Your task to perform on an android device: Do I have any events this weekend? Image 0: 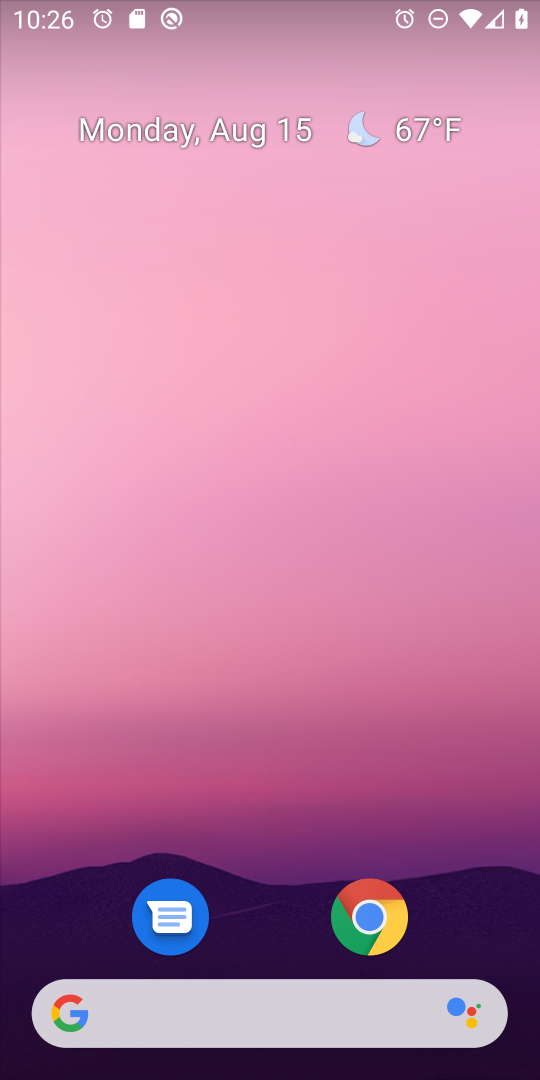
Step 0: drag from (294, 722) to (357, 0)
Your task to perform on an android device: Do I have any events this weekend? Image 1: 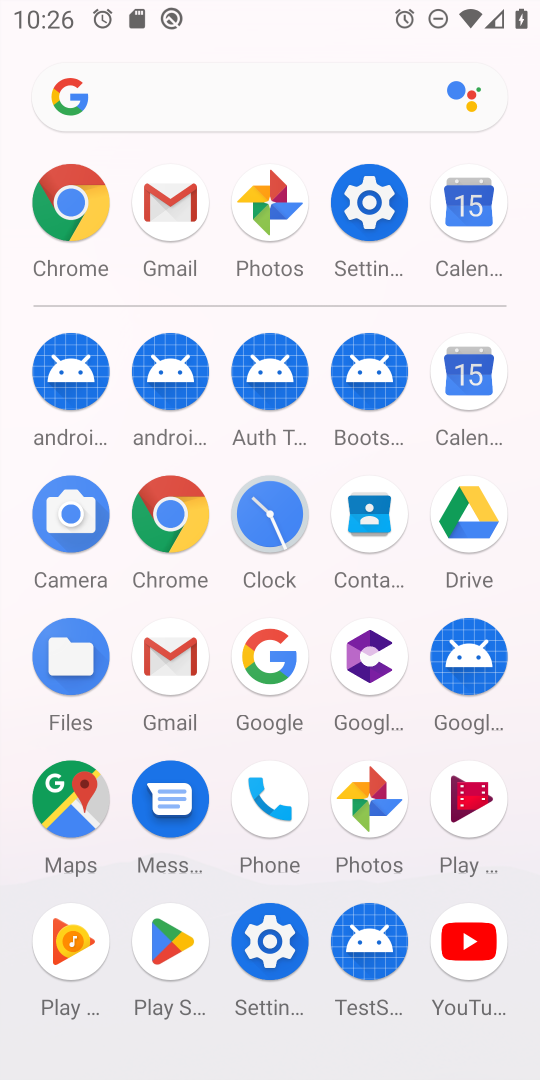
Step 1: click (462, 205)
Your task to perform on an android device: Do I have any events this weekend? Image 2: 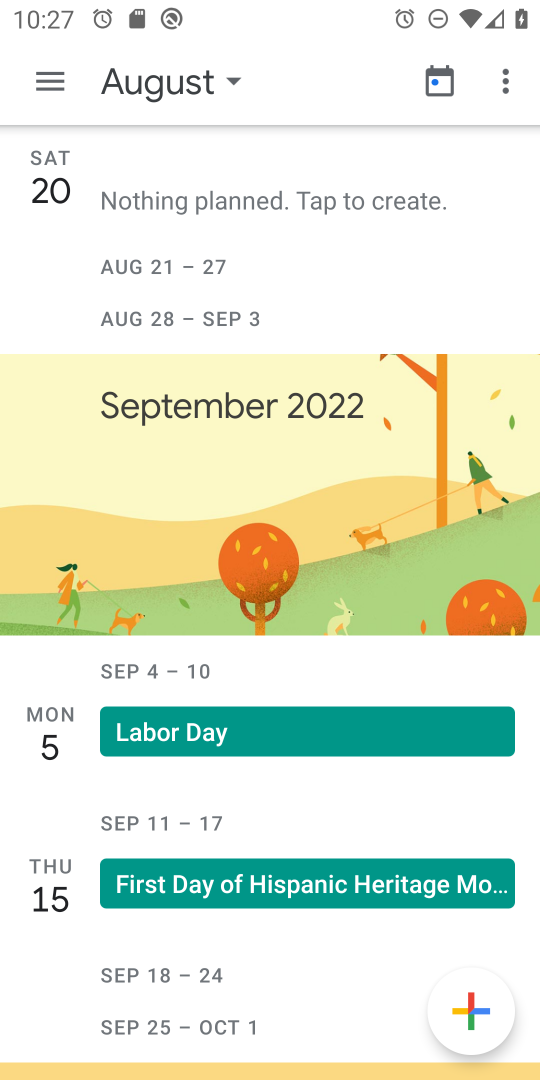
Step 2: click (49, 78)
Your task to perform on an android device: Do I have any events this weekend? Image 3: 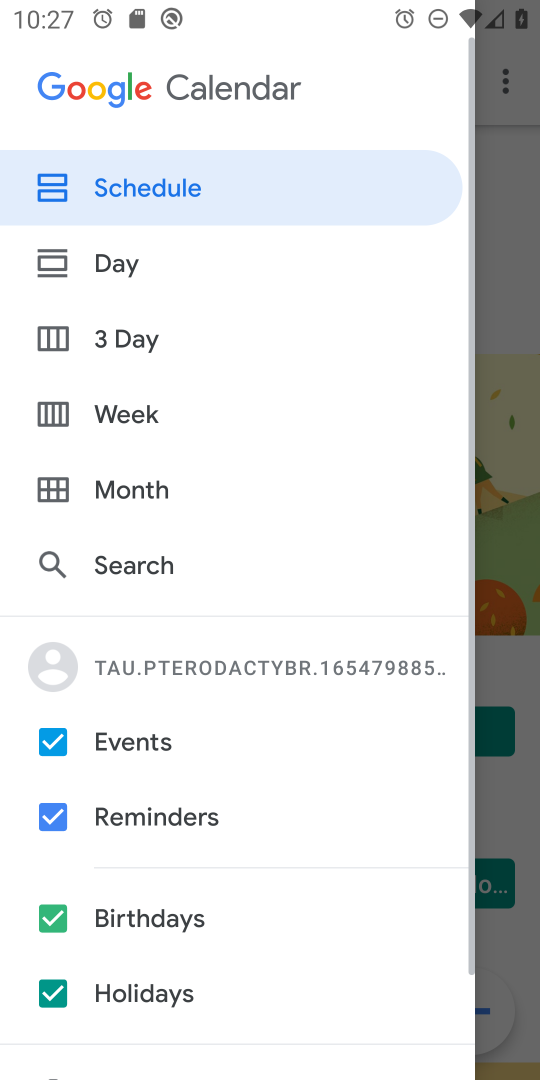
Step 3: click (106, 406)
Your task to perform on an android device: Do I have any events this weekend? Image 4: 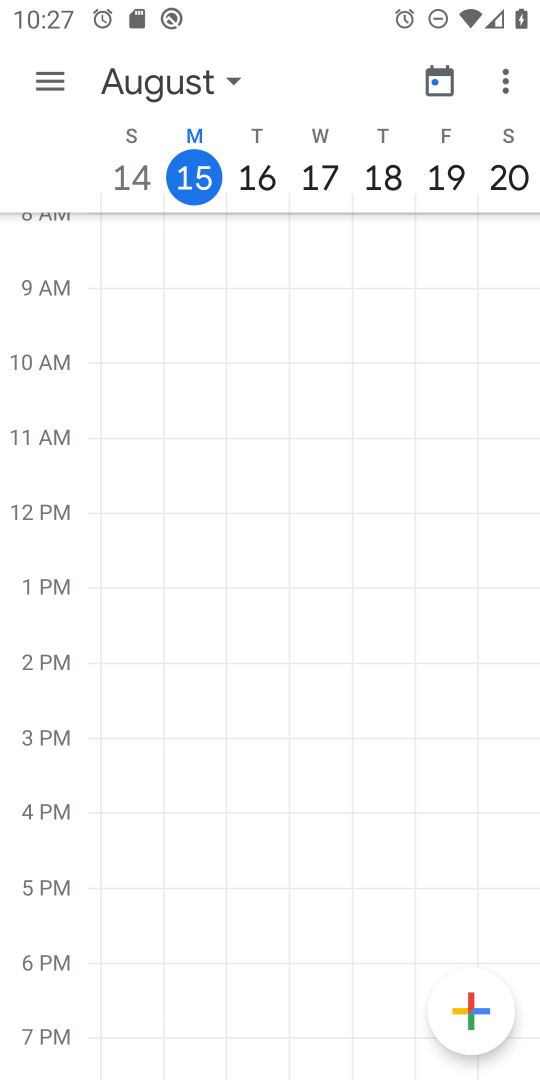
Step 4: click (517, 174)
Your task to perform on an android device: Do I have any events this weekend? Image 5: 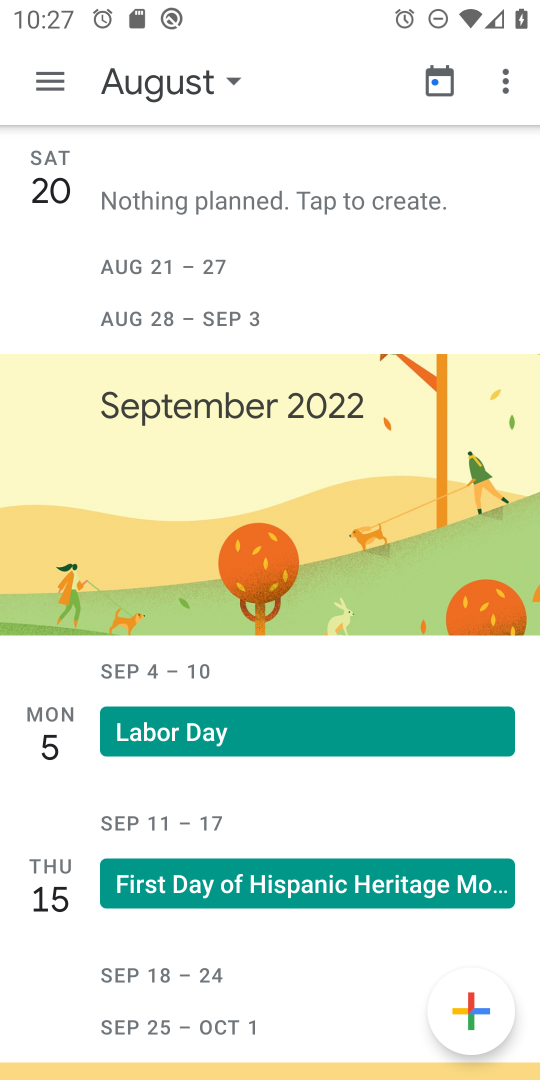
Step 5: task complete